Your task to perform on an android device: Open display settings Image 0: 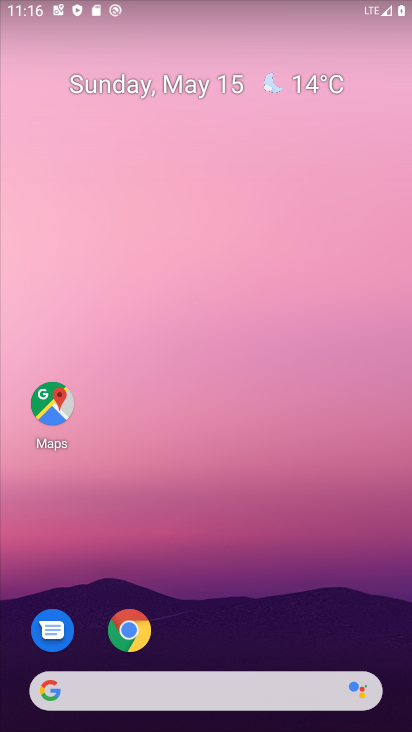
Step 0: drag from (0, 0) to (232, 282)
Your task to perform on an android device: Open display settings Image 1: 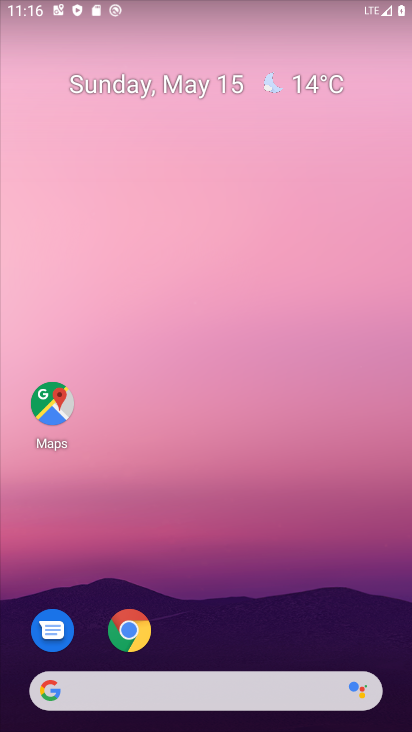
Step 1: drag from (93, 527) to (263, 188)
Your task to perform on an android device: Open display settings Image 2: 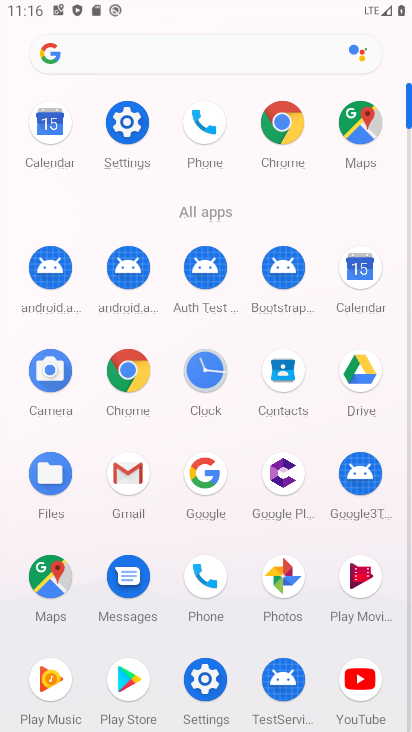
Step 2: click (118, 121)
Your task to perform on an android device: Open display settings Image 3: 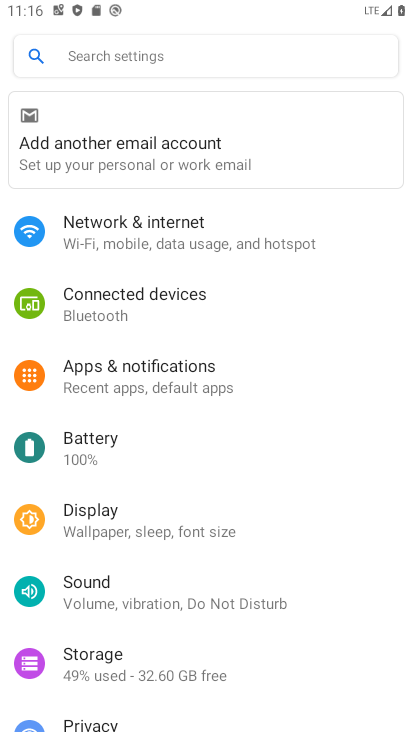
Step 3: click (67, 523)
Your task to perform on an android device: Open display settings Image 4: 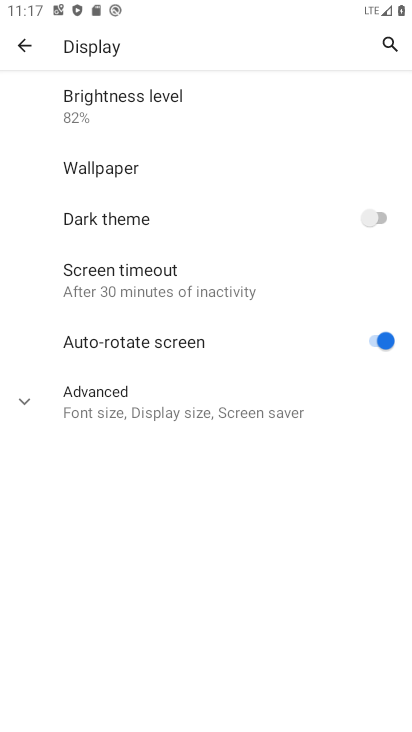
Step 4: task complete